Your task to perform on an android device: create a new album in the google photos Image 0: 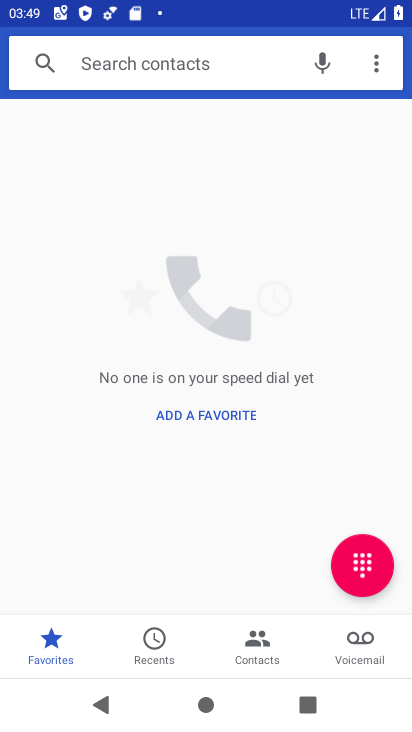
Step 0: press home button
Your task to perform on an android device: create a new album in the google photos Image 1: 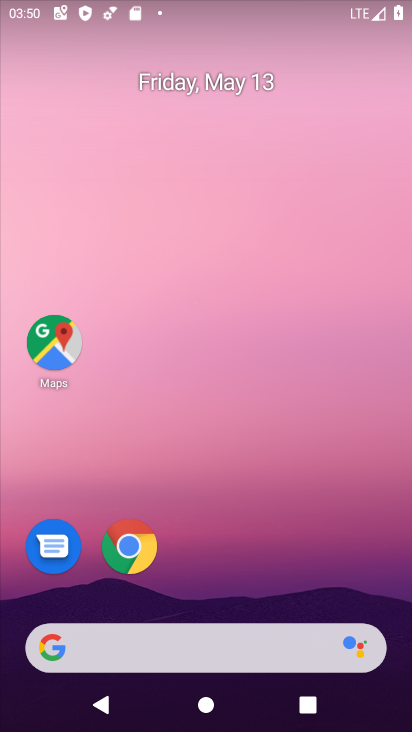
Step 1: drag from (166, 604) to (281, 22)
Your task to perform on an android device: create a new album in the google photos Image 2: 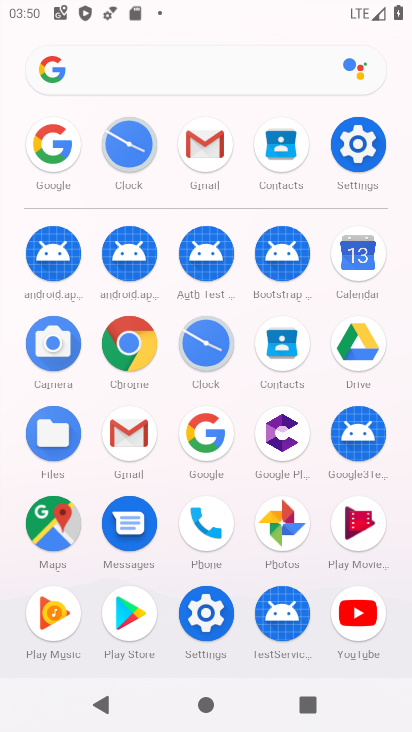
Step 2: click (291, 540)
Your task to perform on an android device: create a new album in the google photos Image 3: 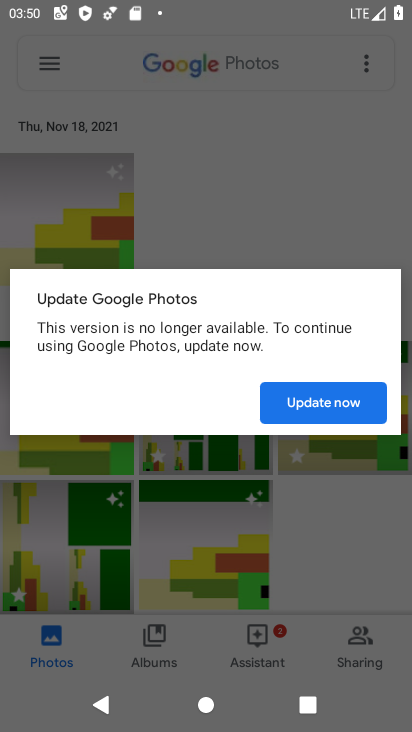
Step 3: click (314, 423)
Your task to perform on an android device: create a new album in the google photos Image 4: 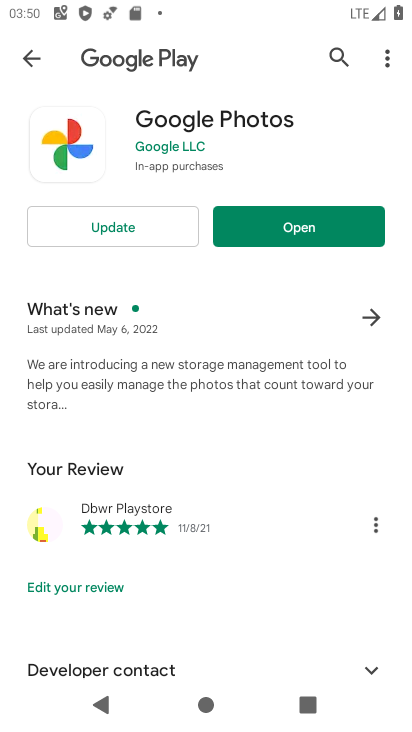
Step 4: click (284, 215)
Your task to perform on an android device: create a new album in the google photos Image 5: 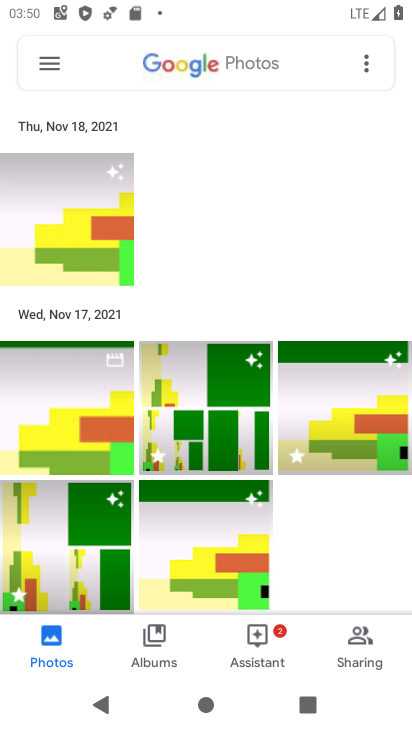
Step 5: drag from (180, 378) to (59, 356)
Your task to perform on an android device: create a new album in the google photos Image 6: 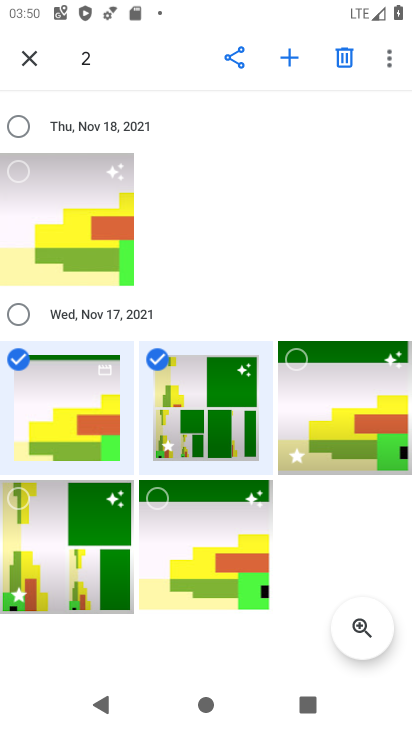
Step 6: click (290, 54)
Your task to perform on an android device: create a new album in the google photos Image 7: 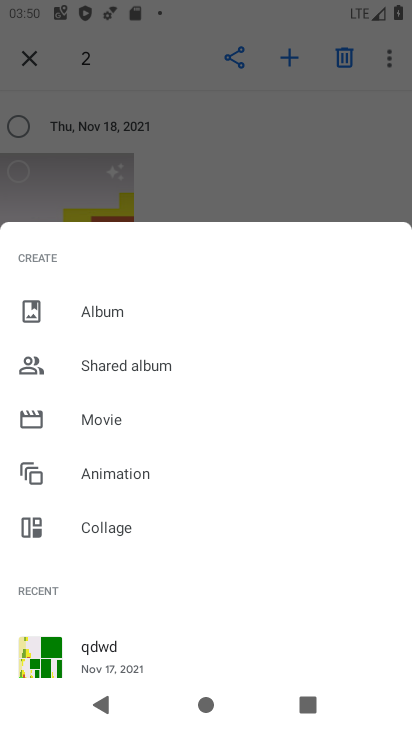
Step 7: click (210, 323)
Your task to perform on an android device: create a new album in the google photos Image 8: 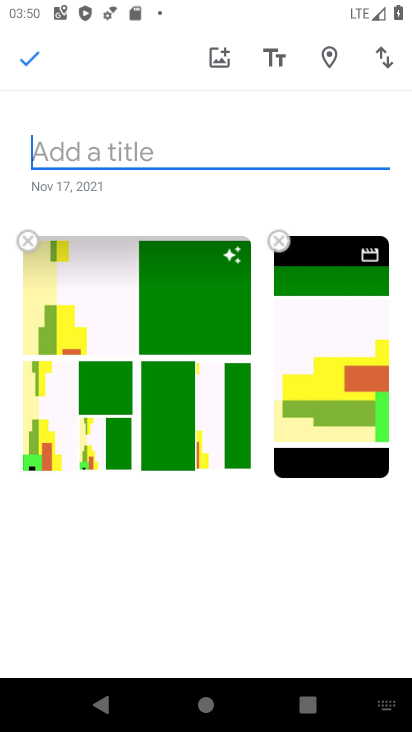
Step 8: type "jhgfdrftgh"
Your task to perform on an android device: create a new album in the google photos Image 9: 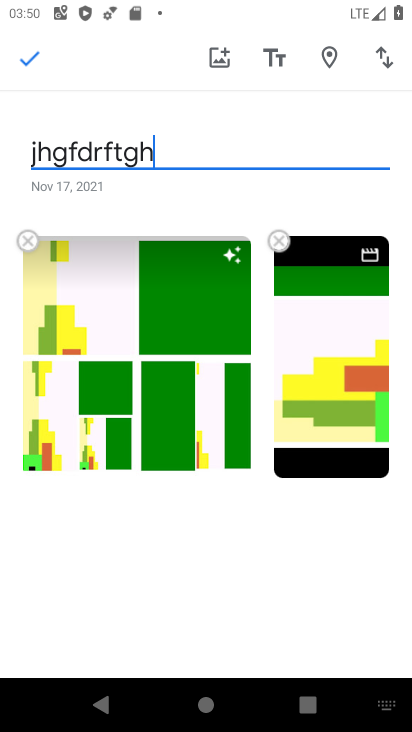
Step 9: click (27, 56)
Your task to perform on an android device: create a new album in the google photos Image 10: 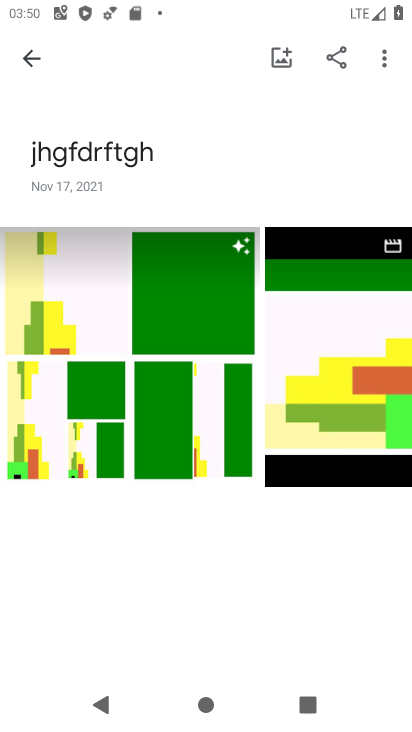
Step 10: task complete